Your task to perform on an android device: Go to accessibility settings Image 0: 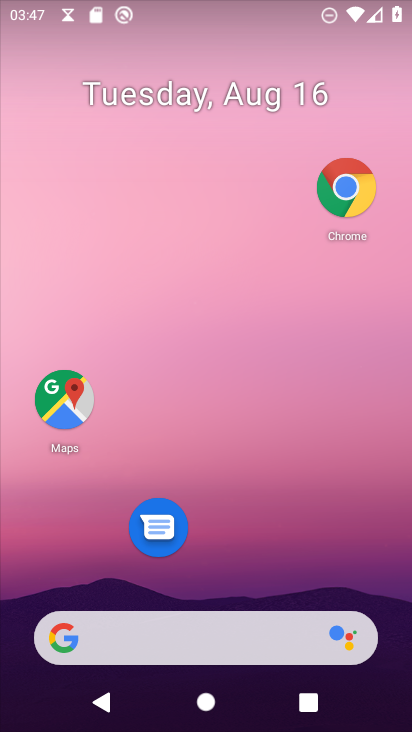
Step 0: press home button
Your task to perform on an android device: Go to accessibility settings Image 1: 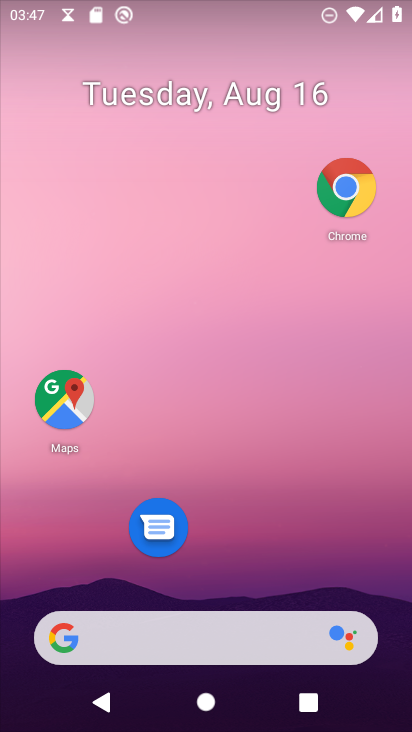
Step 1: drag from (231, 584) to (224, 159)
Your task to perform on an android device: Go to accessibility settings Image 2: 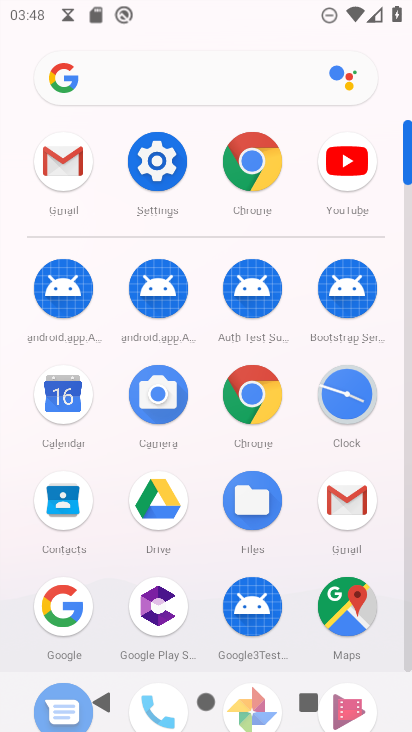
Step 2: click (154, 158)
Your task to perform on an android device: Go to accessibility settings Image 3: 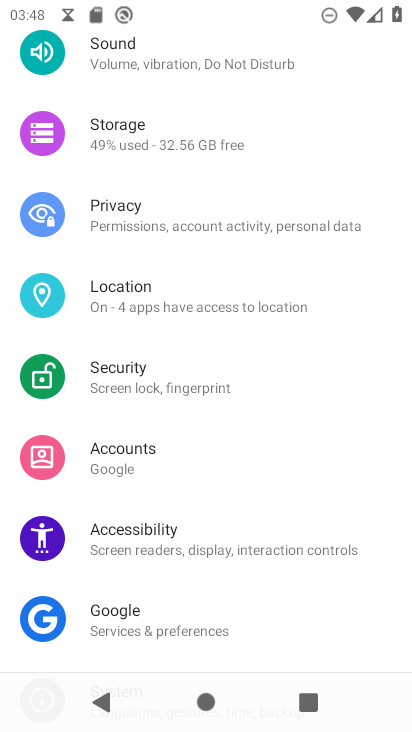
Step 3: click (186, 529)
Your task to perform on an android device: Go to accessibility settings Image 4: 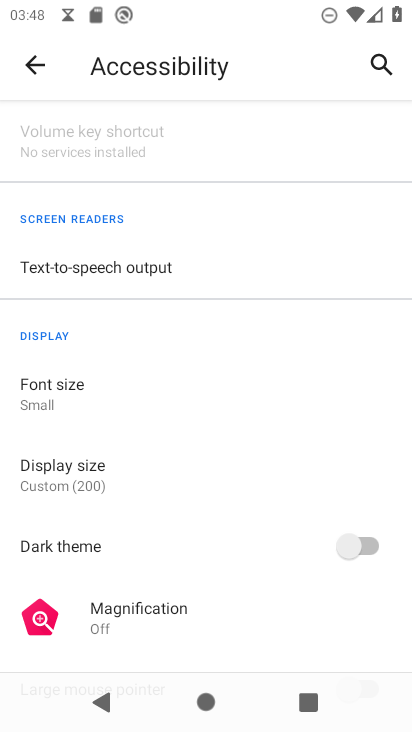
Step 4: task complete